Your task to perform on an android device: change the clock style Image 0: 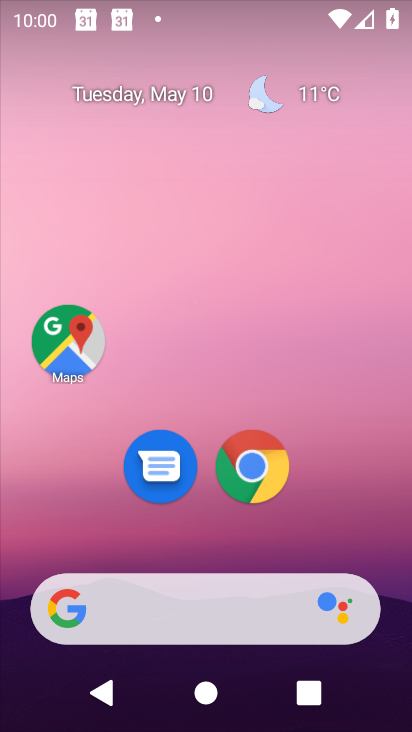
Step 0: drag from (327, 553) to (302, 111)
Your task to perform on an android device: change the clock style Image 1: 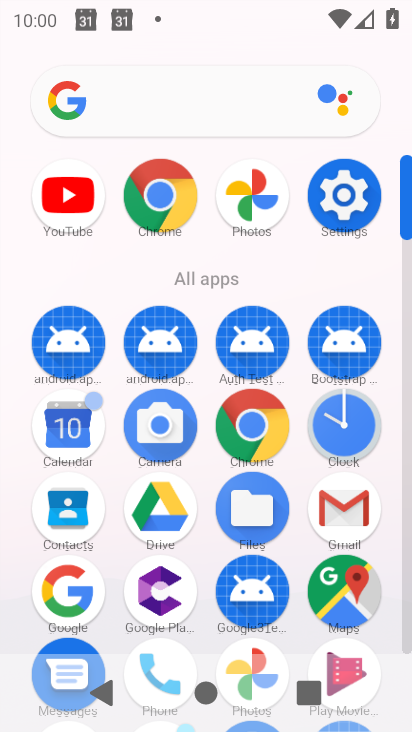
Step 1: click (338, 428)
Your task to perform on an android device: change the clock style Image 2: 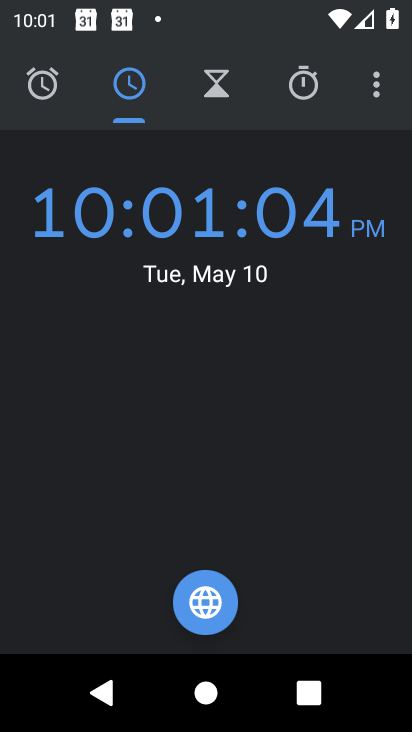
Step 2: drag from (371, 90) to (255, 165)
Your task to perform on an android device: change the clock style Image 3: 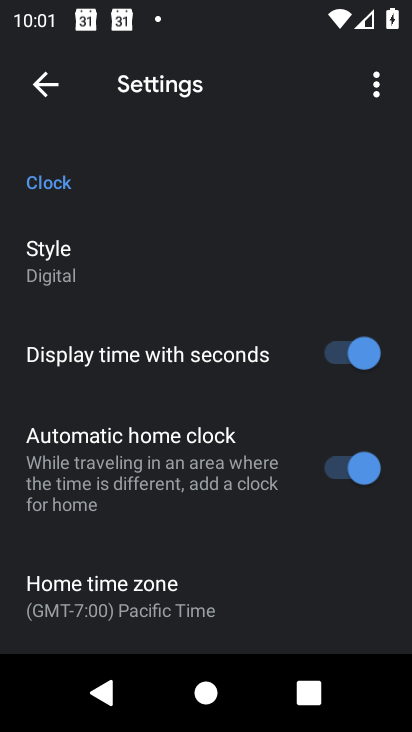
Step 3: click (36, 260)
Your task to perform on an android device: change the clock style Image 4: 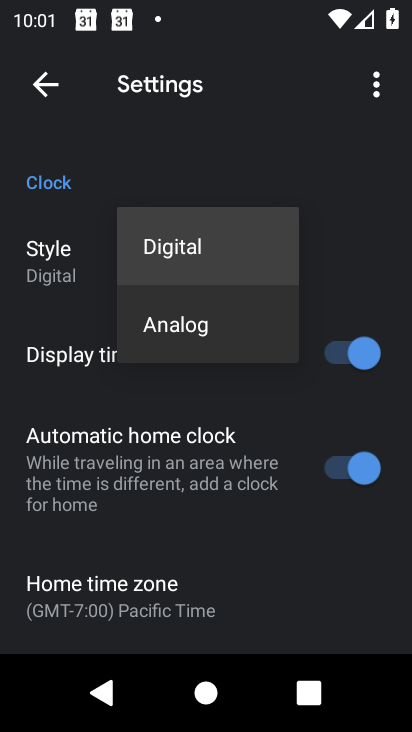
Step 4: click (156, 335)
Your task to perform on an android device: change the clock style Image 5: 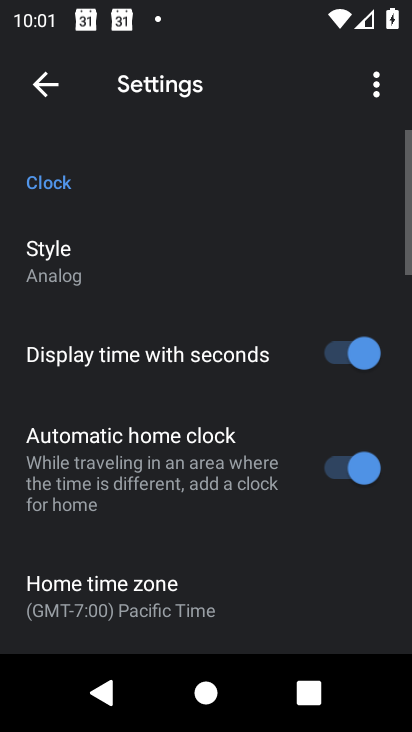
Step 5: task complete